Your task to perform on an android device: Open battery settings Image 0: 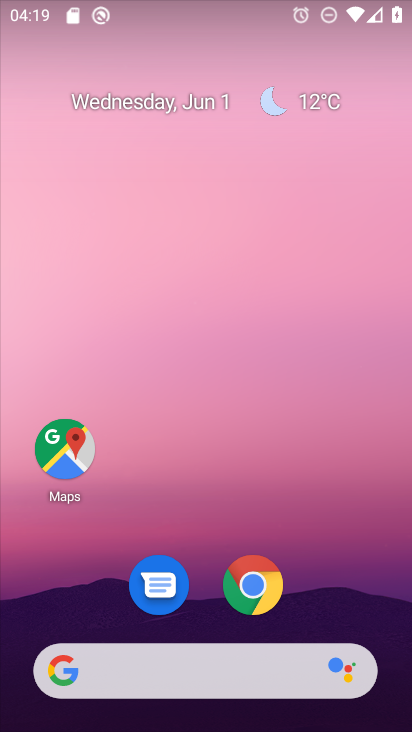
Step 0: drag from (222, 519) to (229, 0)
Your task to perform on an android device: Open battery settings Image 1: 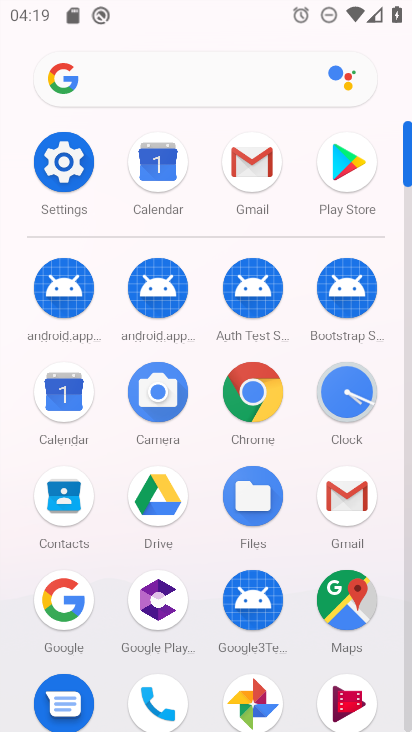
Step 1: click (59, 152)
Your task to perform on an android device: Open battery settings Image 2: 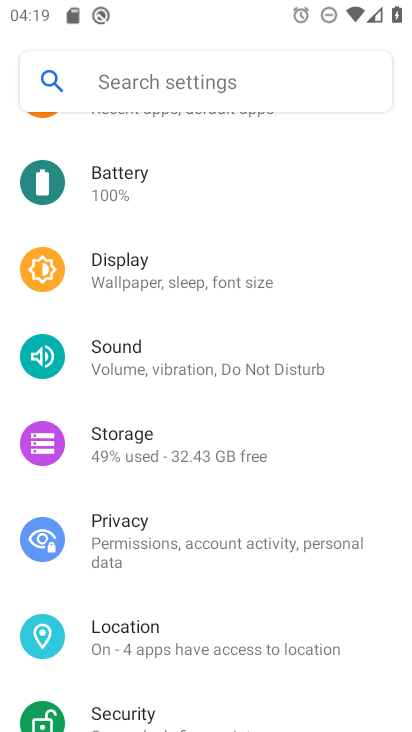
Step 2: click (160, 191)
Your task to perform on an android device: Open battery settings Image 3: 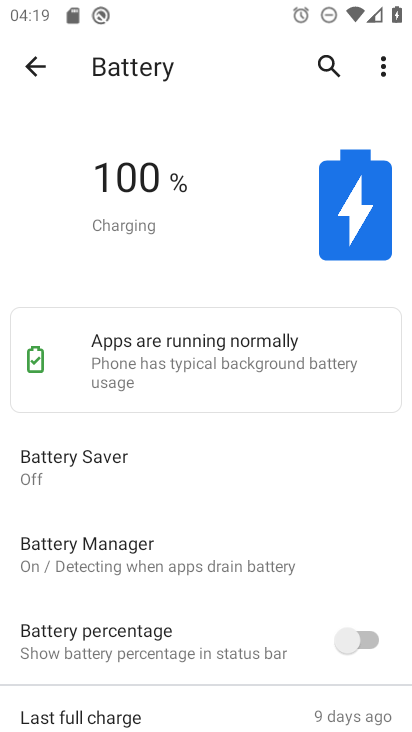
Step 3: task complete